Your task to perform on an android device: set the timer Image 0: 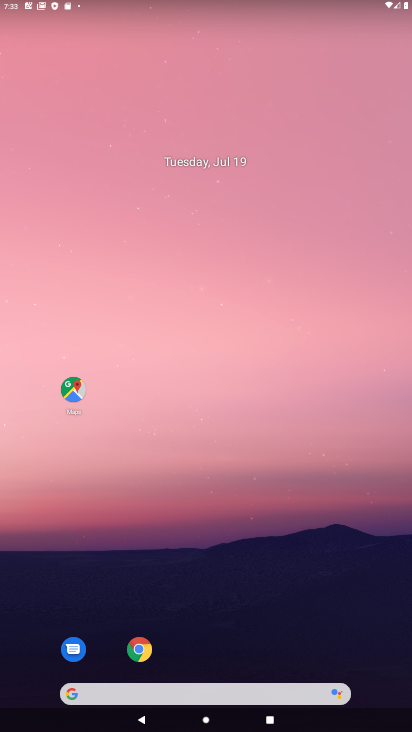
Step 0: drag from (183, 693) to (363, 64)
Your task to perform on an android device: set the timer Image 1: 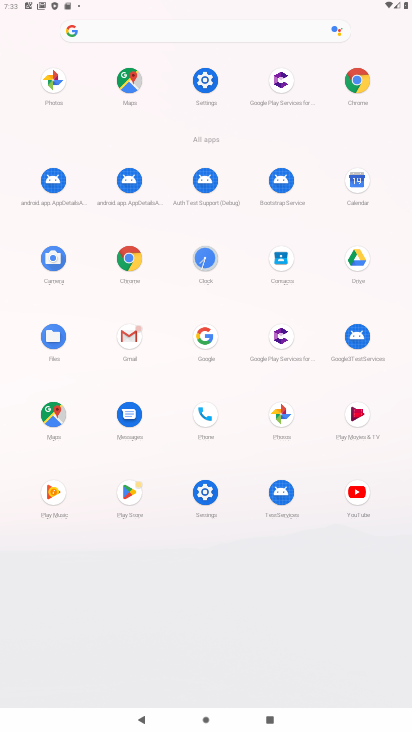
Step 1: click (205, 259)
Your task to perform on an android device: set the timer Image 2: 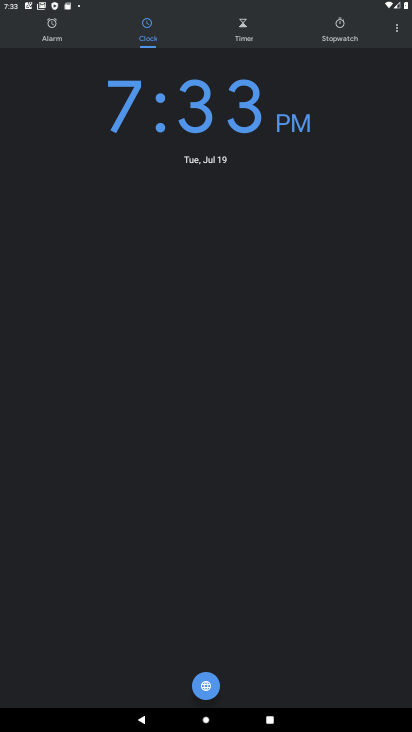
Step 2: click (243, 31)
Your task to perform on an android device: set the timer Image 3: 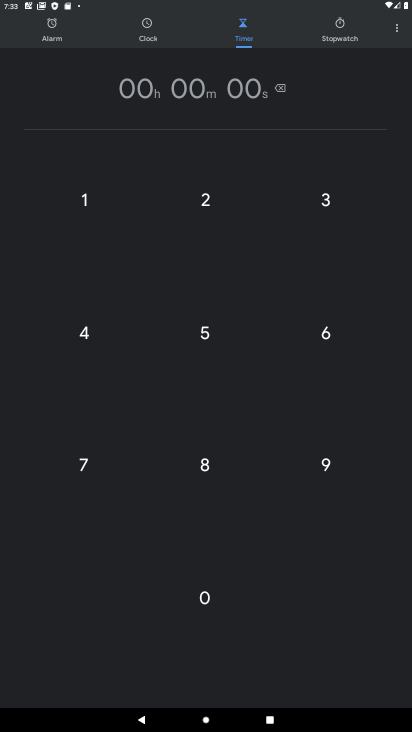
Step 3: type "1357"
Your task to perform on an android device: set the timer Image 4: 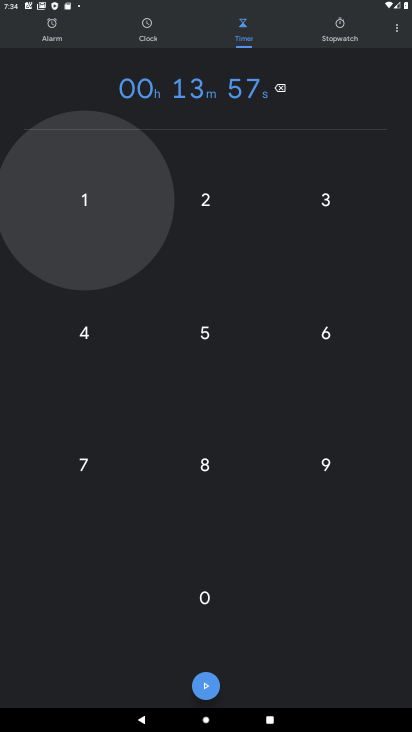
Step 4: click (207, 689)
Your task to perform on an android device: set the timer Image 5: 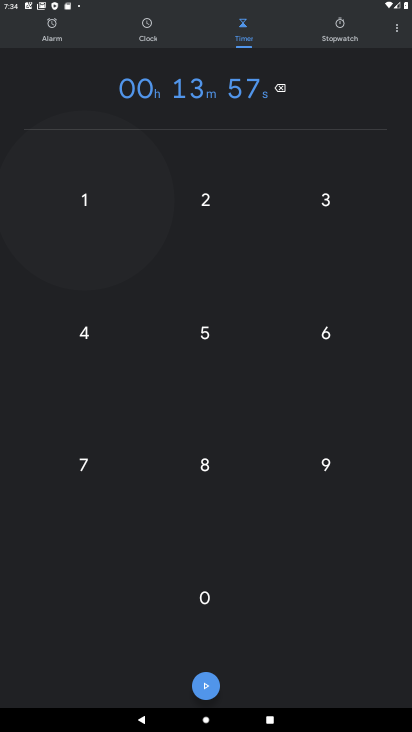
Step 5: click (207, 689)
Your task to perform on an android device: set the timer Image 6: 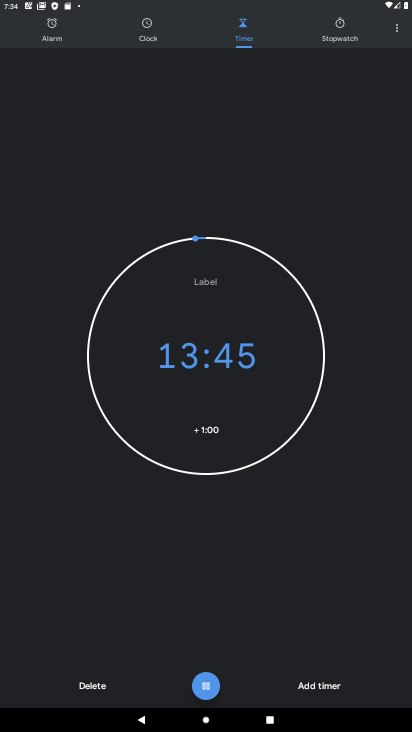
Step 6: click (207, 689)
Your task to perform on an android device: set the timer Image 7: 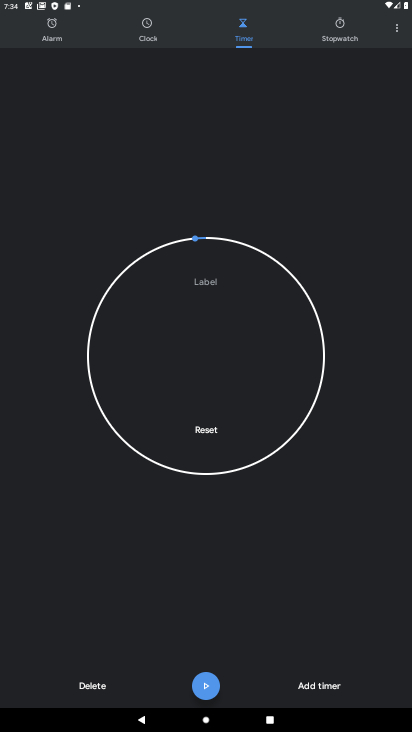
Step 7: task complete